Your task to perform on an android device: Open calendar and show me the fourth week of next month Image 0: 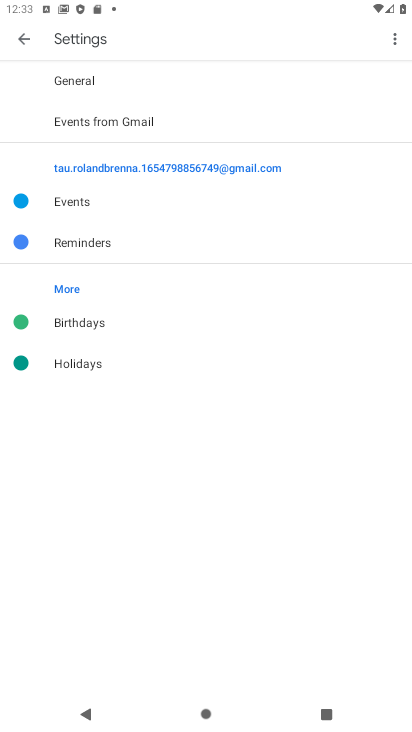
Step 0: press home button
Your task to perform on an android device: Open calendar and show me the fourth week of next month Image 1: 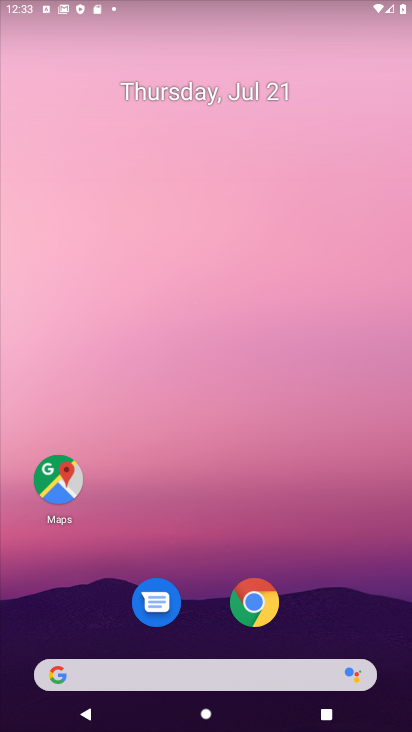
Step 1: drag from (367, 634) to (194, 79)
Your task to perform on an android device: Open calendar and show me the fourth week of next month Image 2: 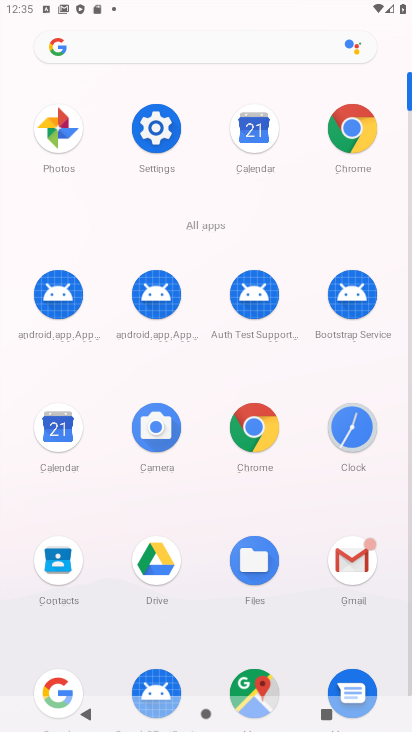
Step 2: click (45, 456)
Your task to perform on an android device: Open calendar and show me the fourth week of next month Image 3: 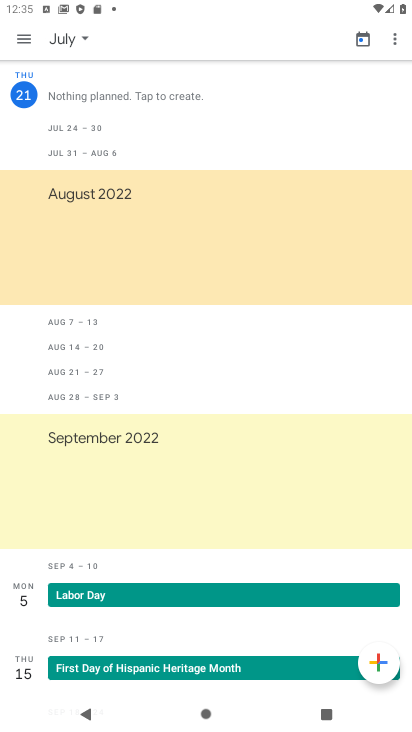
Step 3: click (59, 32)
Your task to perform on an android device: Open calendar and show me the fourth week of next month Image 4: 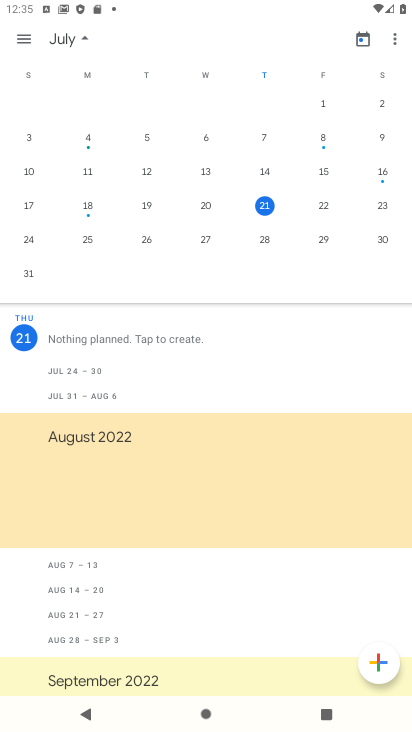
Step 4: drag from (390, 171) to (7, 202)
Your task to perform on an android device: Open calendar and show me the fourth week of next month Image 5: 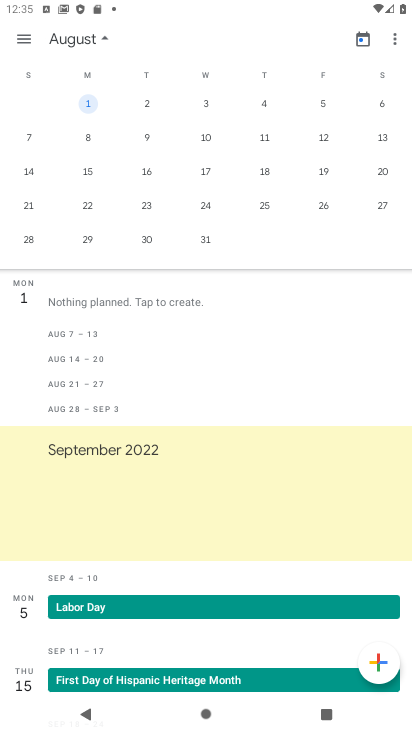
Step 5: click (25, 238)
Your task to perform on an android device: Open calendar and show me the fourth week of next month Image 6: 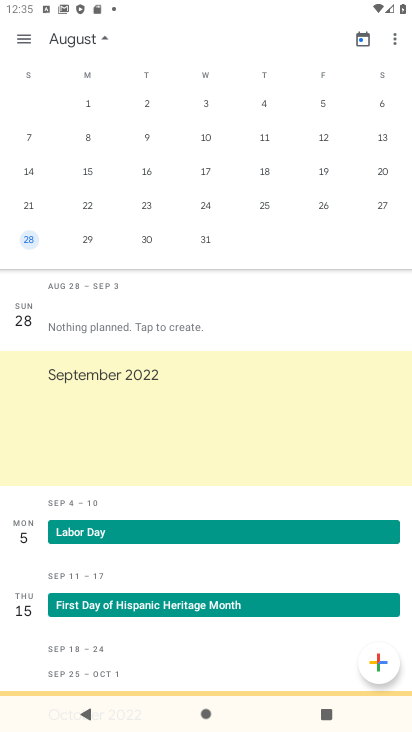
Step 6: task complete